Your task to perform on an android device: turn off notifications in google photos Image 0: 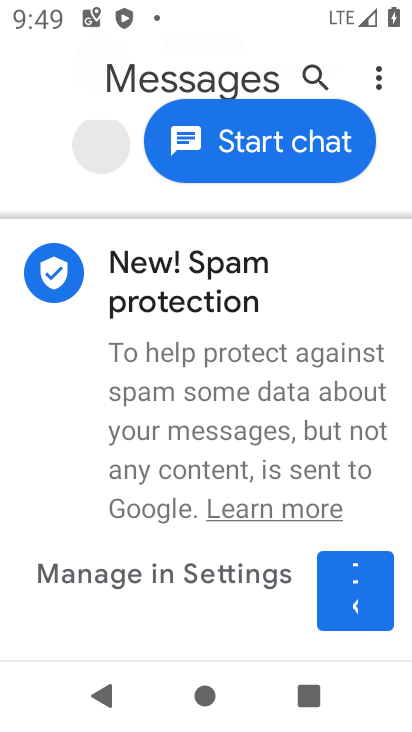
Step 0: press home button
Your task to perform on an android device: turn off notifications in google photos Image 1: 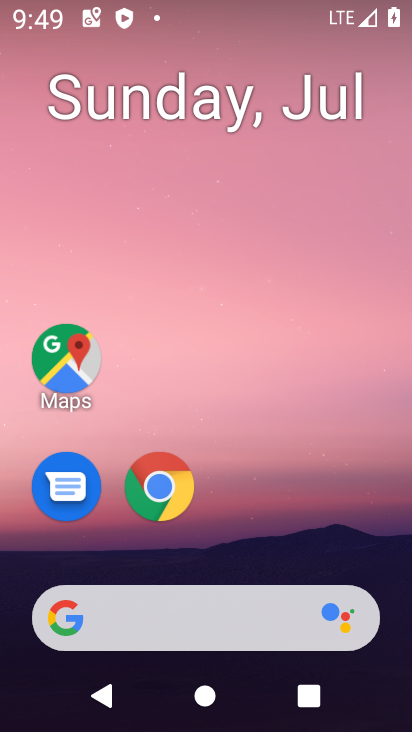
Step 1: drag from (383, 548) to (377, 124)
Your task to perform on an android device: turn off notifications in google photos Image 2: 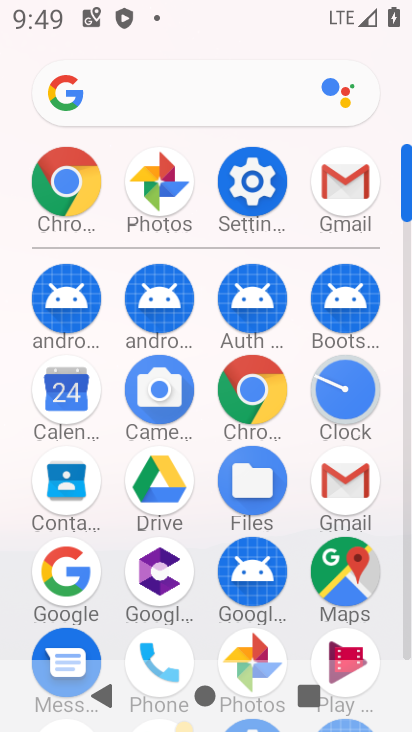
Step 2: click (158, 180)
Your task to perform on an android device: turn off notifications in google photos Image 3: 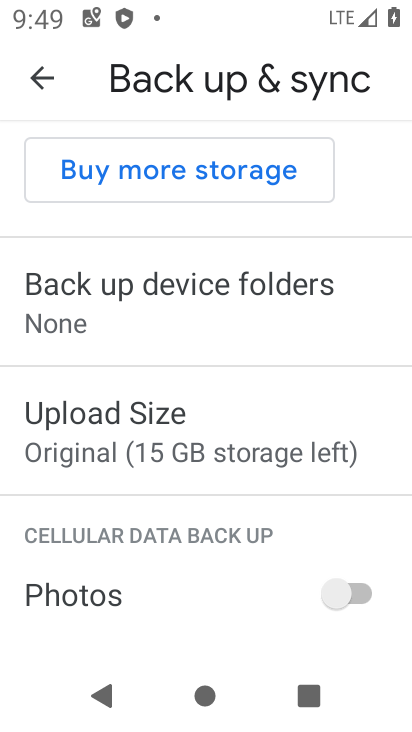
Step 3: press back button
Your task to perform on an android device: turn off notifications in google photos Image 4: 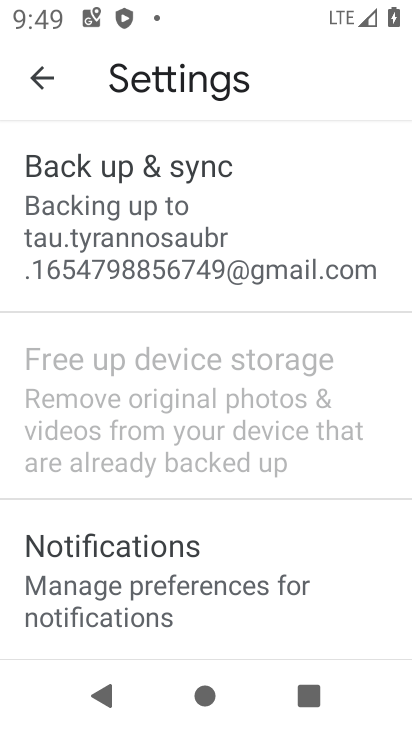
Step 4: click (203, 573)
Your task to perform on an android device: turn off notifications in google photos Image 5: 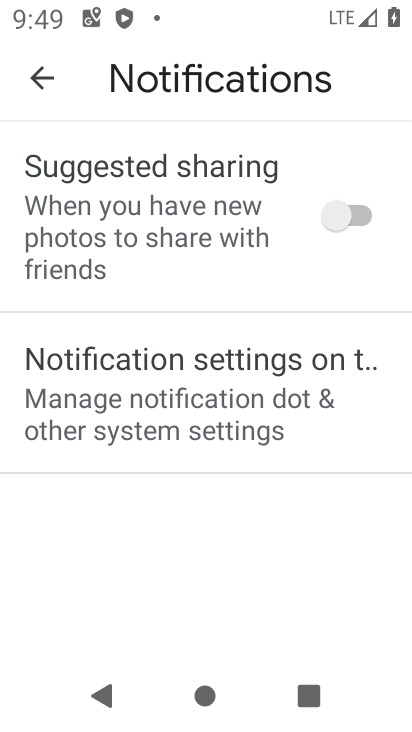
Step 5: click (249, 376)
Your task to perform on an android device: turn off notifications in google photos Image 6: 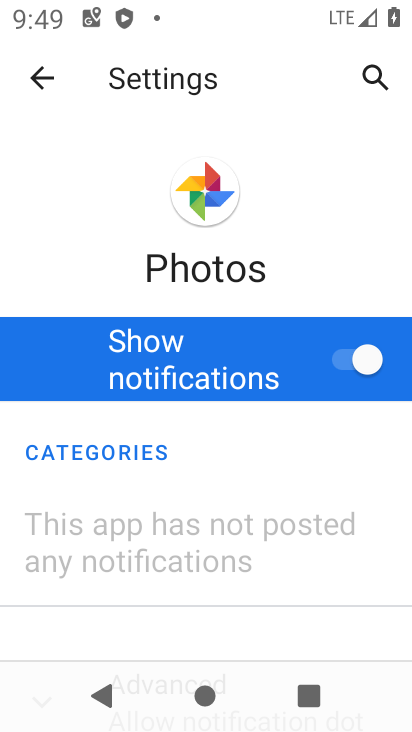
Step 6: click (364, 357)
Your task to perform on an android device: turn off notifications in google photos Image 7: 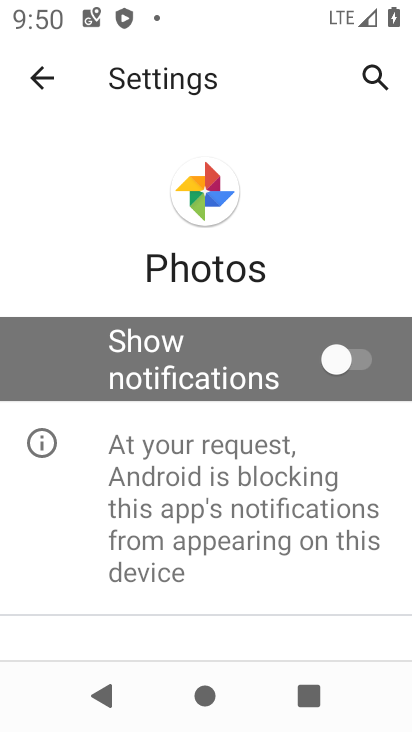
Step 7: task complete